Your task to perform on an android device: What is the news today? Image 0: 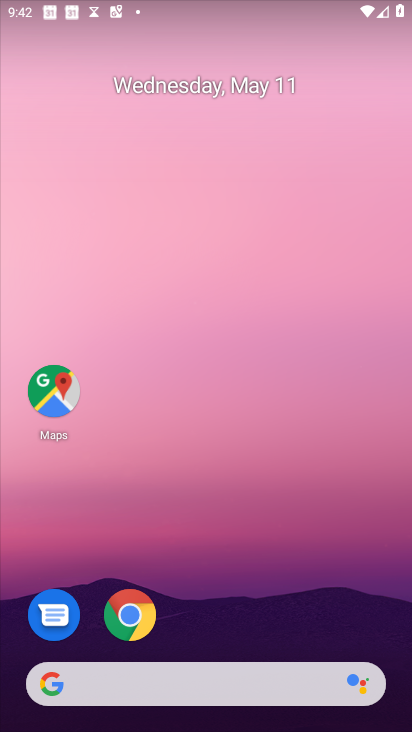
Step 0: press home button
Your task to perform on an android device: What is the news today? Image 1: 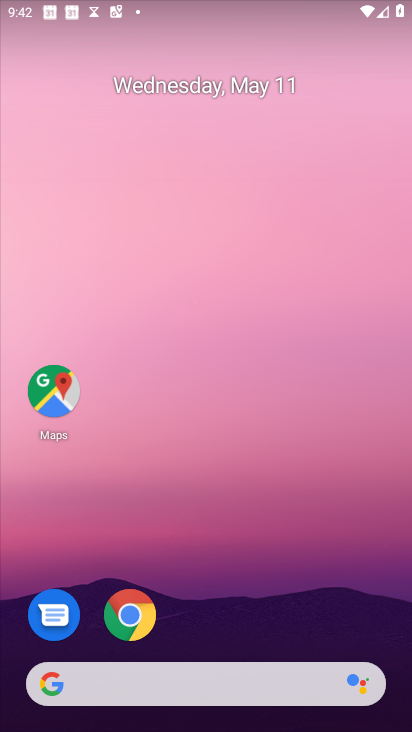
Step 1: click (125, 608)
Your task to perform on an android device: What is the news today? Image 2: 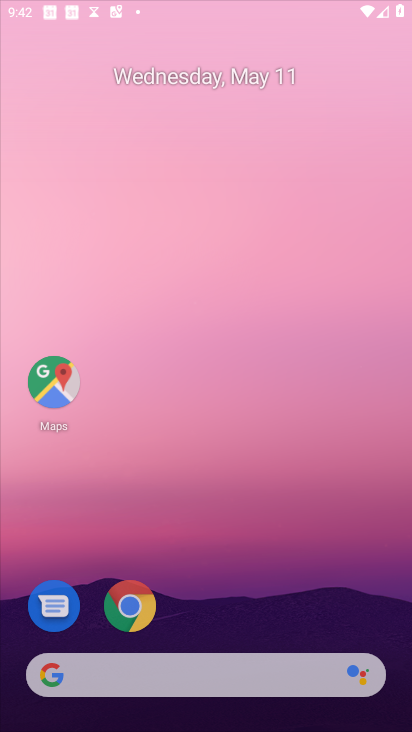
Step 2: click (127, 616)
Your task to perform on an android device: What is the news today? Image 3: 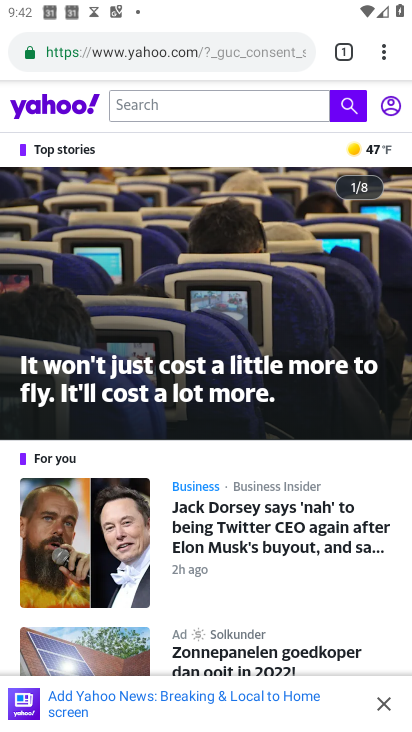
Step 3: press home button
Your task to perform on an android device: What is the news today? Image 4: 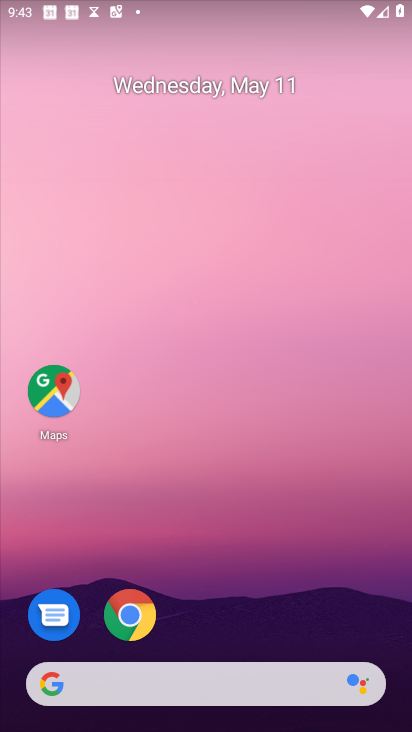
Step 4: click (129, 677)
Your task to perform on an android device: What is the news today? Image 5: 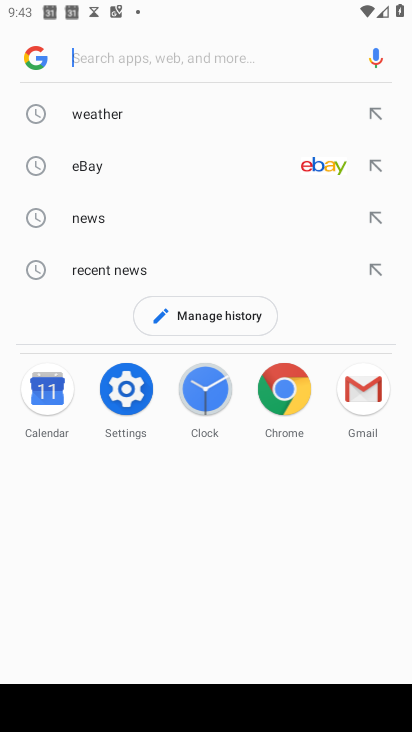
Step 5: click (85, 225)
Your task to perform on an android device: What is the news today? Image 6: 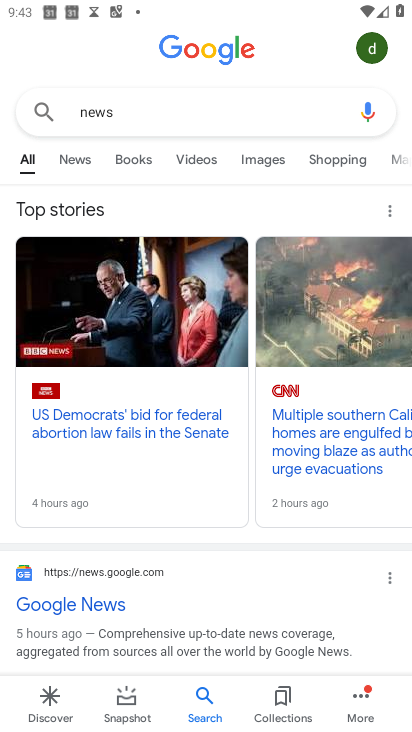
Step 6: task complete